Your task to perform on an android device: Go to battery settings Image 0: 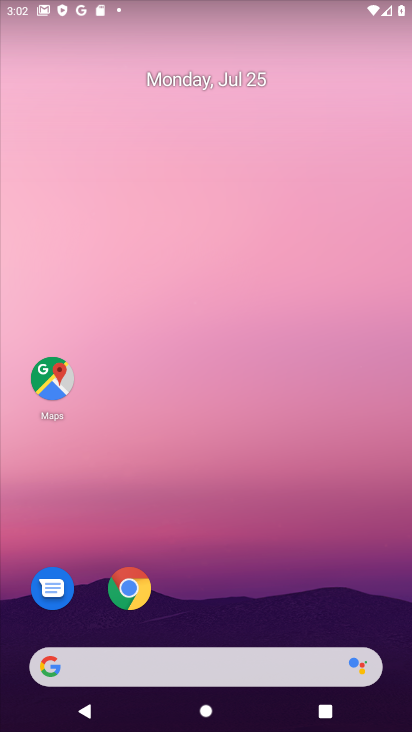
Step 0: drag from (394, 648) to (374, 64)
Your task to perform on an android device: Go to battery settings Image 1: 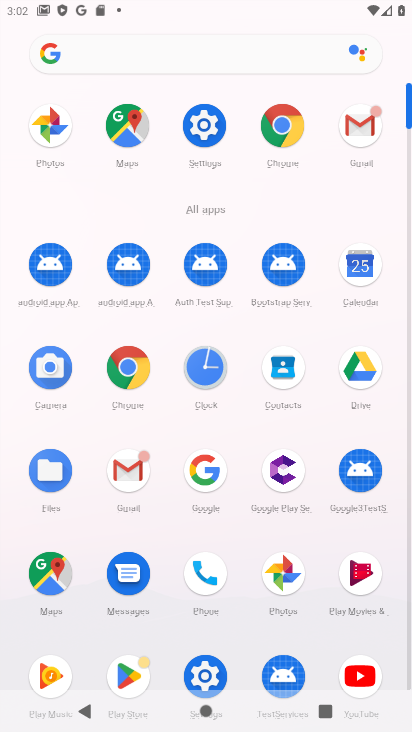
Step 1: click (213, 128)
Your task to perform on an android device: Go to battery settings Image 2: 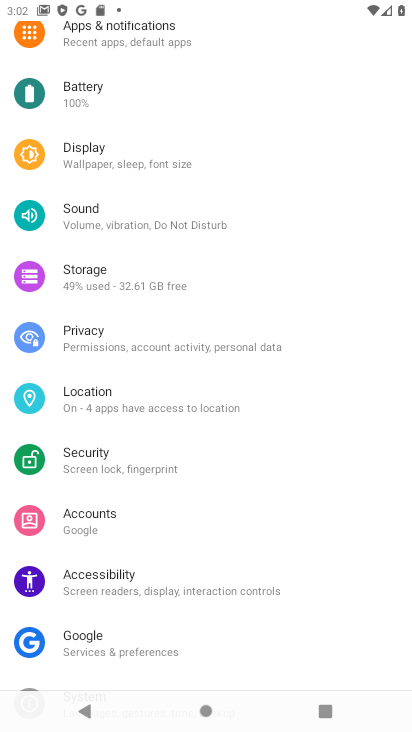
Step 2: click (89, 85)
Your task to perform on an android device: Go to battery settings Image 3: 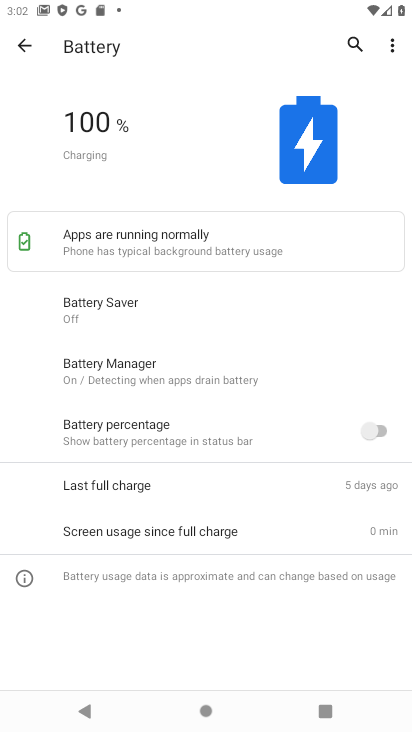
Step 3: task complete